Your task to perform on an android device: turn on wifi Image 0: 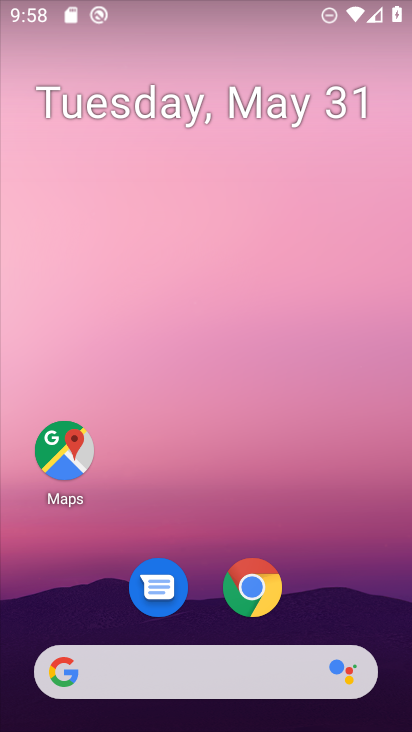
Step 0: press home button
Your task to perform on an android device: turn on wifi Image 1: 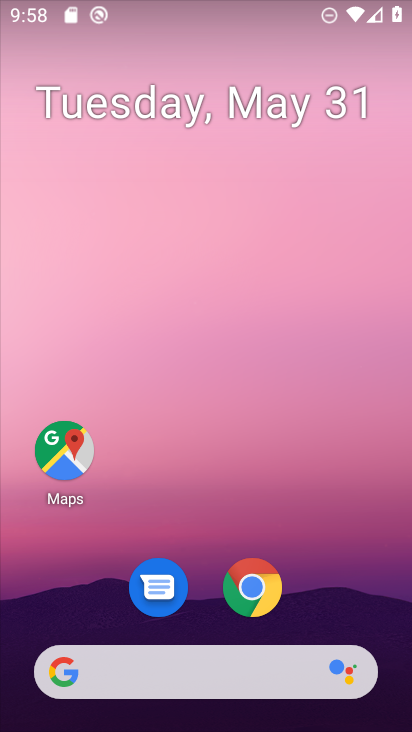
Step 1: task complete